Your task to perform on an android device: Do I have any events today? Image 0: 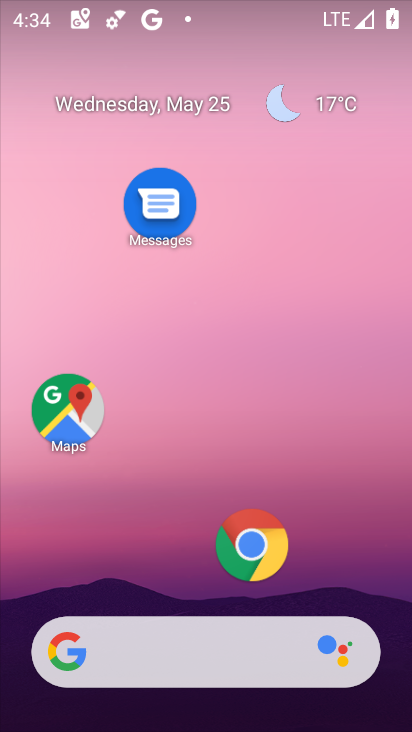
Step 0: click (210, 108)
Your task to perform on an android device: Do I have any events today? Image 1: 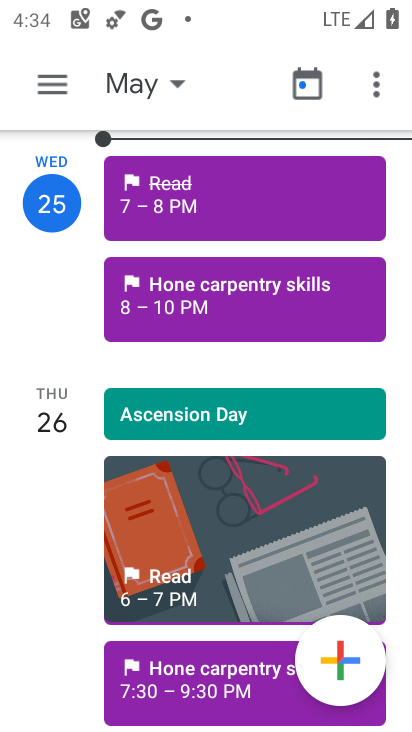
Step 1: click (44, 82)
Your task to perform on an android device: Do I have any events today? Image 2: 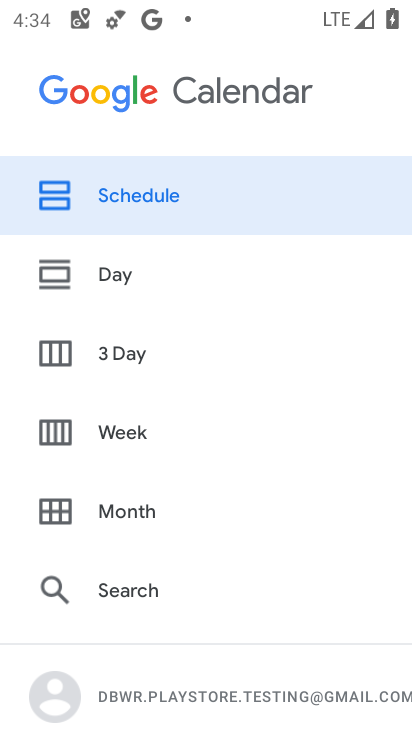
Step 2: drag from (128, 574) to (198, 152)
Your task to perform on an android device: Do I have any events today? Image 3: 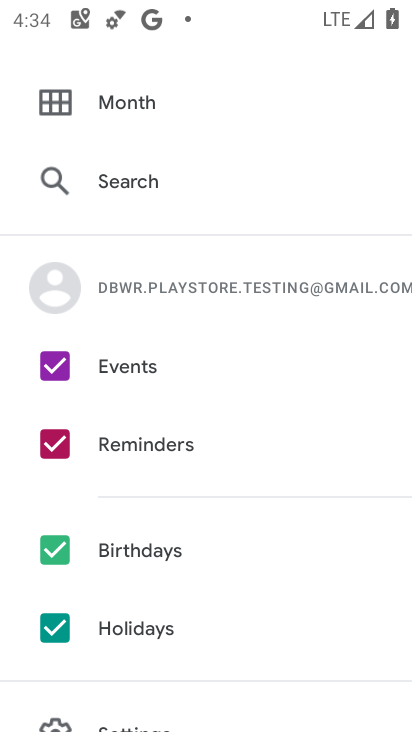
Step 3: click (52, 630)
Your task to perform on an android device: Do I have any events today? Image 4: 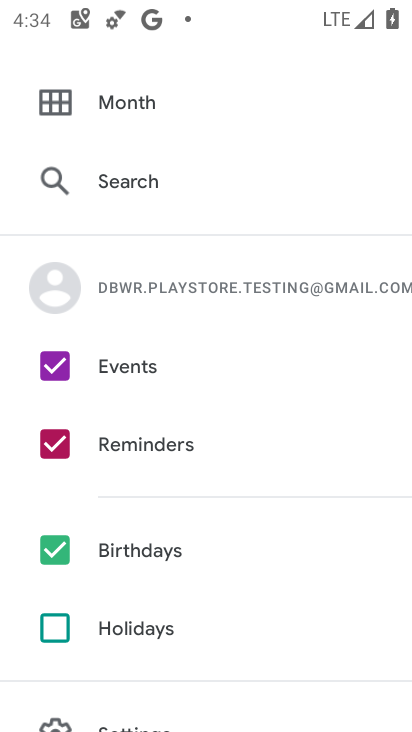
Step 4: click (73, 536)
Your task to perform on an android device: Do I have any events today? Image 5: 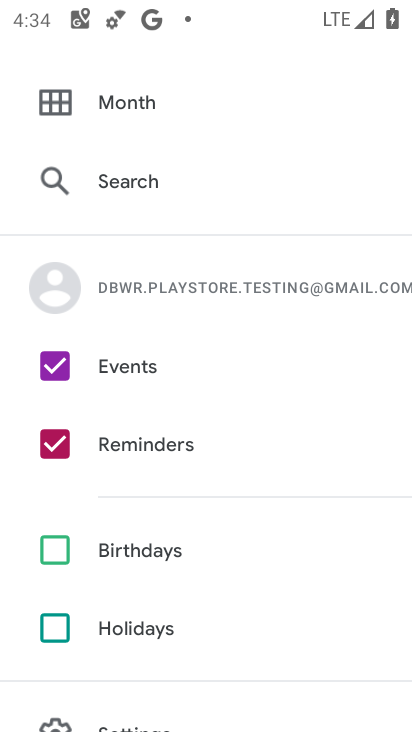
Step 5: click (65, 450)
Your task to perform on an android device: Do I have any events today? Image 6: 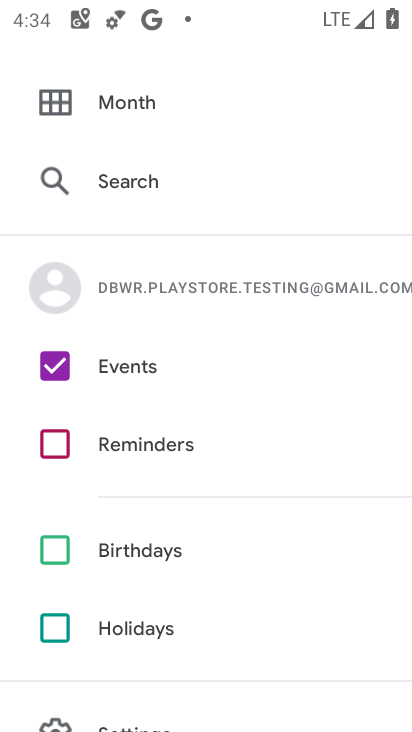
Step 6: drag from (297, 159) to (242, 459)
Your task to perform on an android device: Do I have any events today? Image 7: 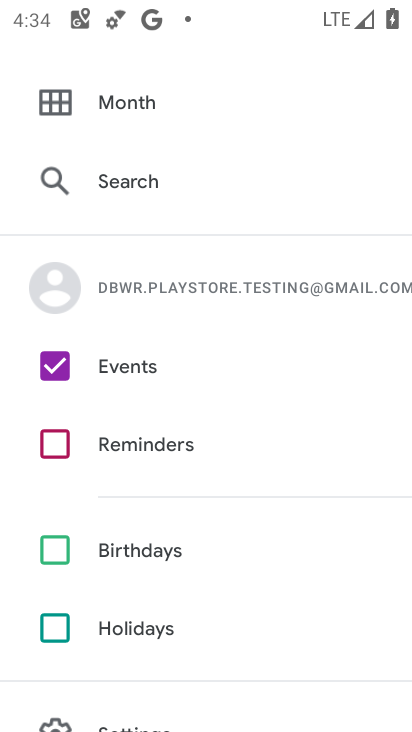
Step 7: drag from (330, 187) to (362, 564)
Your task to perform on an android device: Do I have any events today? Image 8: 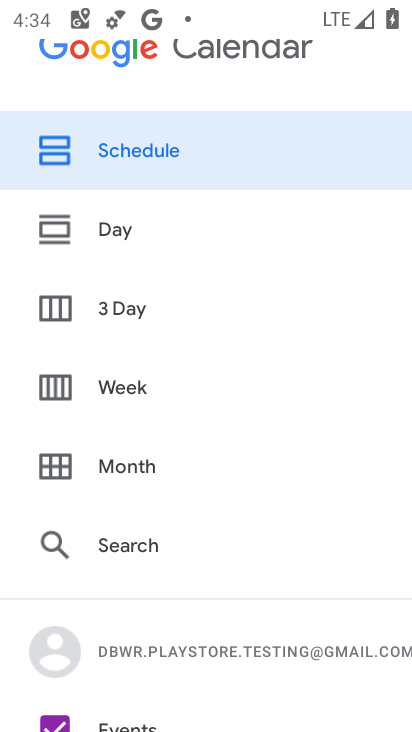
Step 8: click (233, 170)
Your task to perform on an android device: Do I have any events today? Image 9: 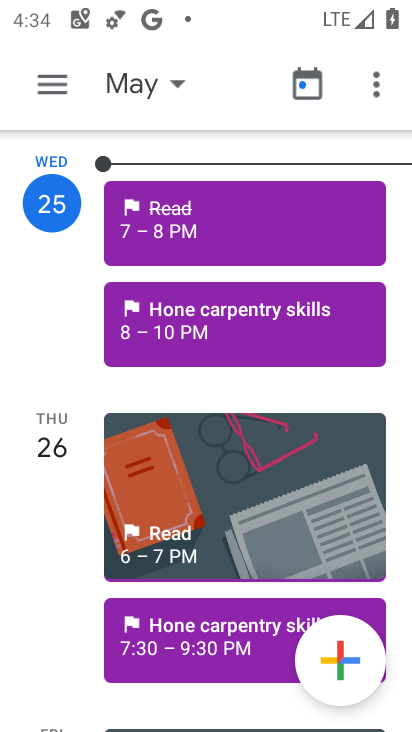
Step 9: task complete